Your task to perform on an android device: What's the weather? Image 0: 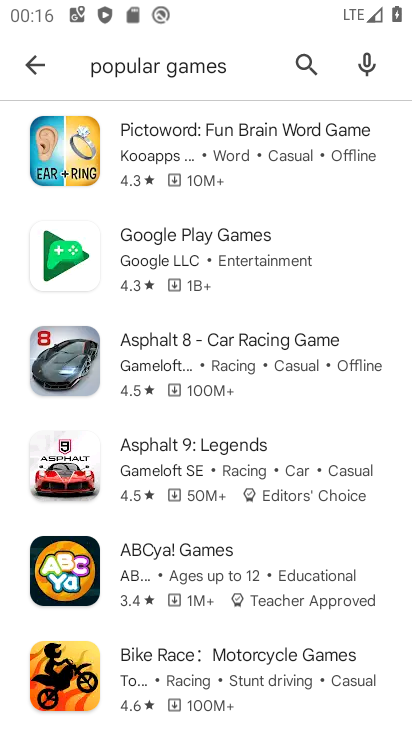
Step 0: press home button
Your task to perform on an android device: What's the weather? Image 1: 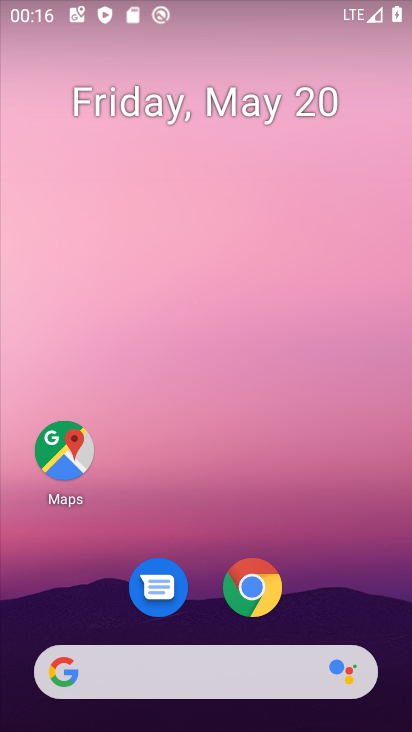
Step 1: click (216, 694)
Your task to perform on an android device: What's the weather? Image 2: 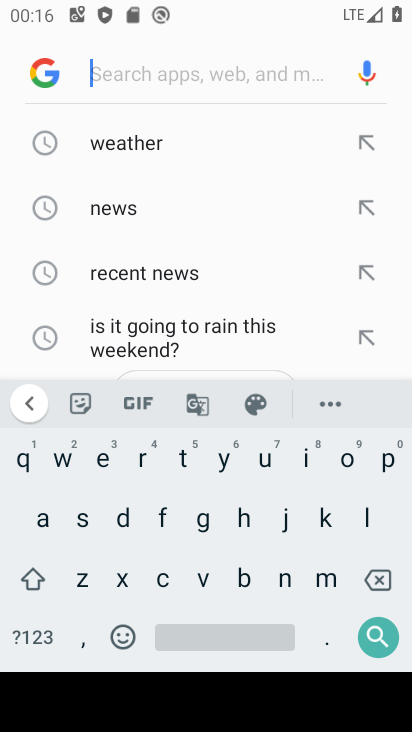
Step 2: click (150, 151)
Your task to perform on an android device: What's the weather? Image 3: 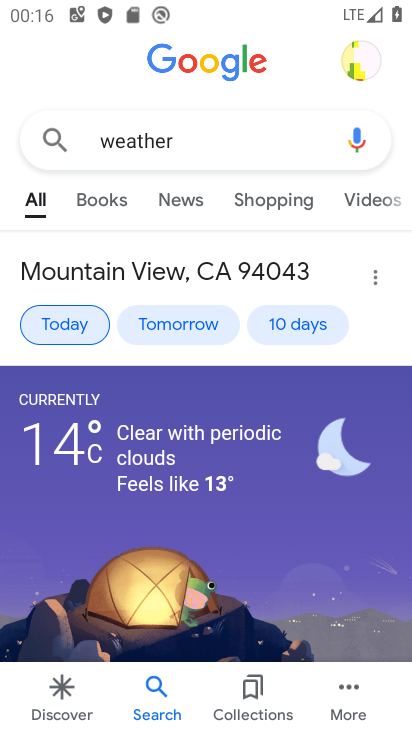
Step 3: task complete